Your task to perform on an android device: Check the weather Image 0: 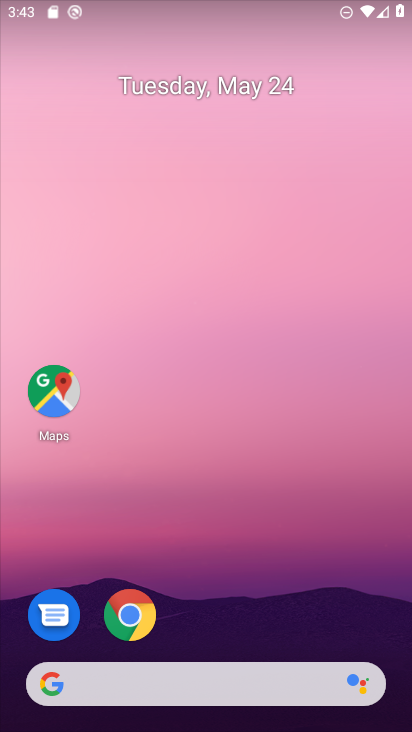
Step 0: drag from (249, 620) to (228, 300)
Your task to perform on an android device: Check the weather Image 1: 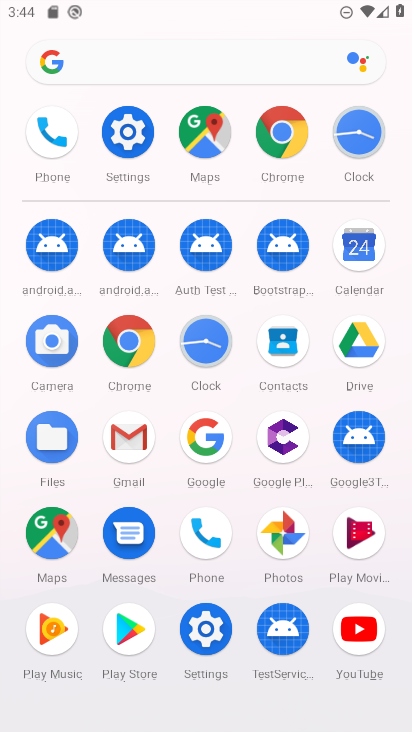
Step 1: click (204, 459)
Your task to perform on an android device: Check the weather Image 2: 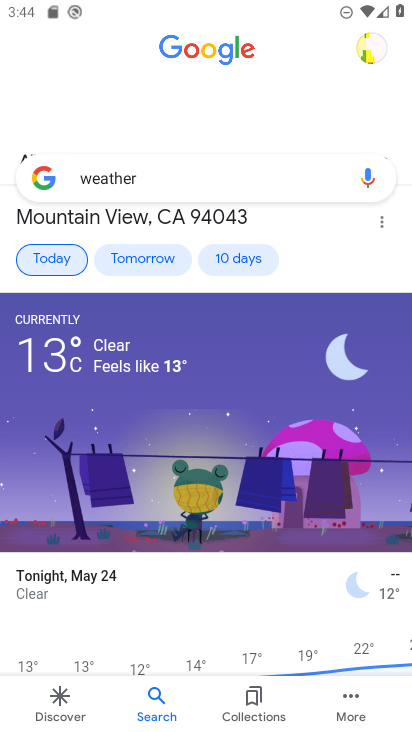
Step 2: task complete